Your task to perform on an android device: check data usage Image 0: 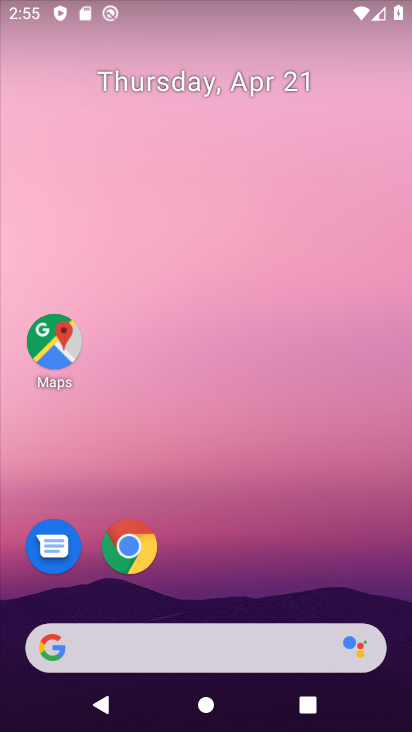
Step 0: drag from (292, 608) to (377, 51)
Your task to perform on an android device: check data usage Image 1: 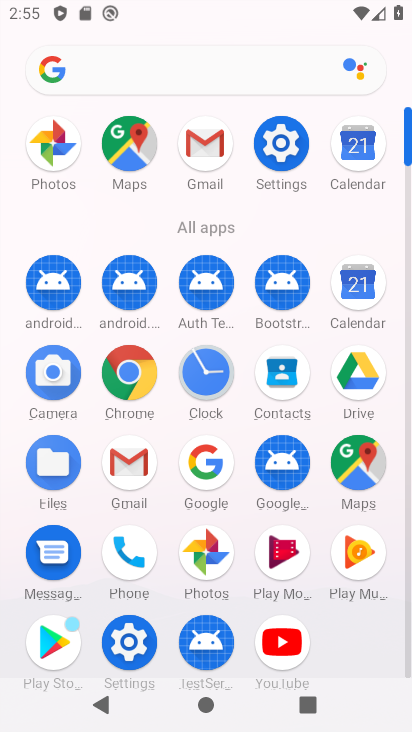
Step 1: click (275, 146)
Your task to perform on an android device: check data usage Image 2: 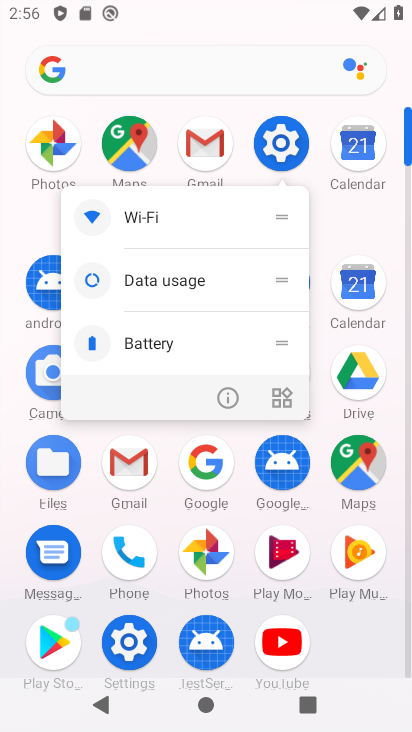
Step 2: click (298, 140)
Your task to perform on an android device: check data usage Image 3: 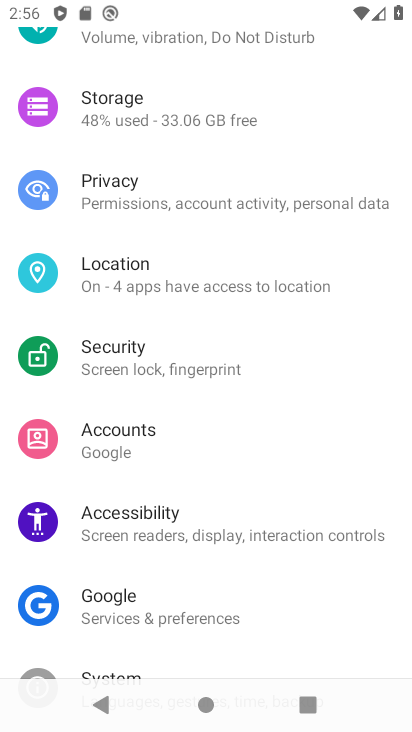
Step 3: drag from (154, 154) to (132, 565)
Your task to perform on an android device: check data usage Image 4: 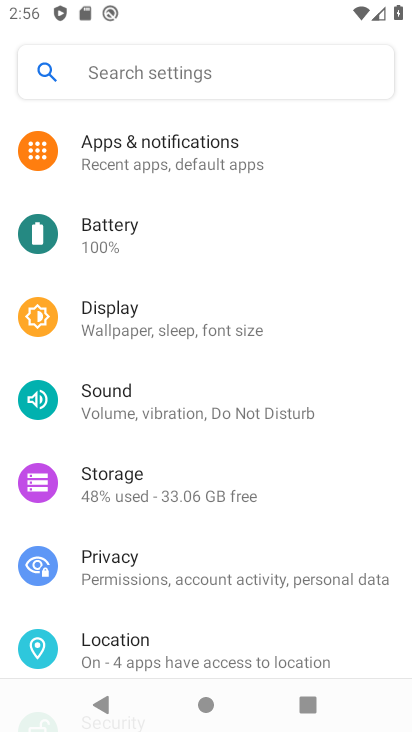
Step 4: click (137, 136)
Your task to perform on an android device: check data usage Image 5: 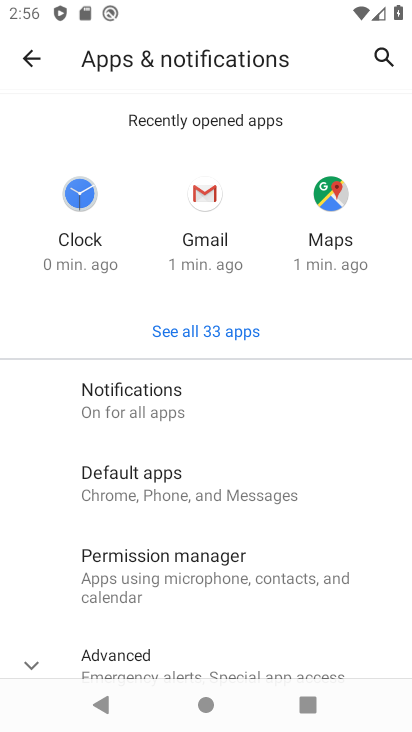
Step 5: click (31, 59)
Your task to perform on an android device: check data usage Image 6: 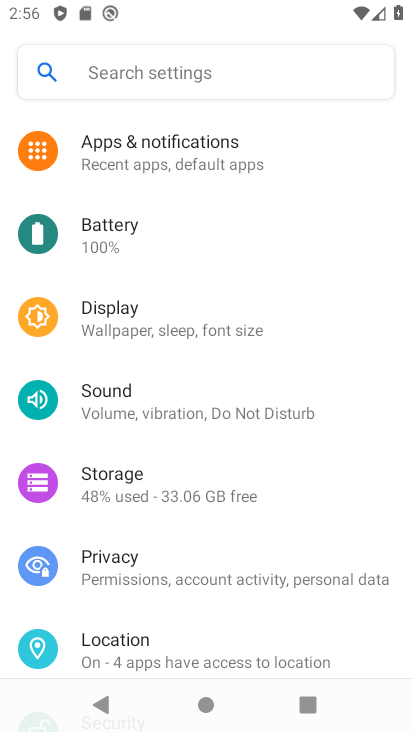
Step 6: drag from (180, 172) to (153, 647)
Your task to perform on an android device: check data usage Image 7: 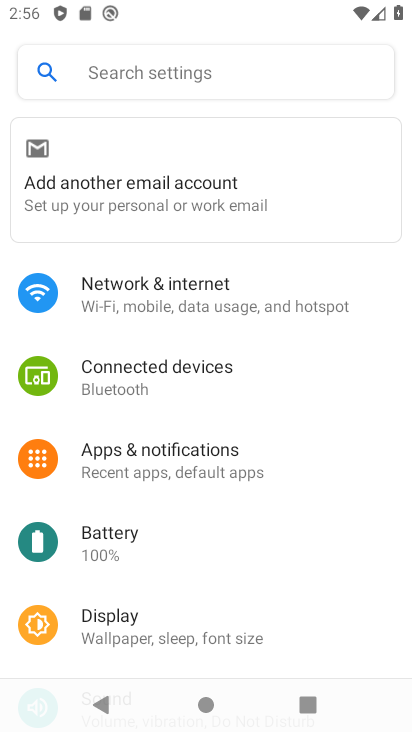
Step 7: click (166, 291)
Your task to perform on an android device: check data usage Image 8: 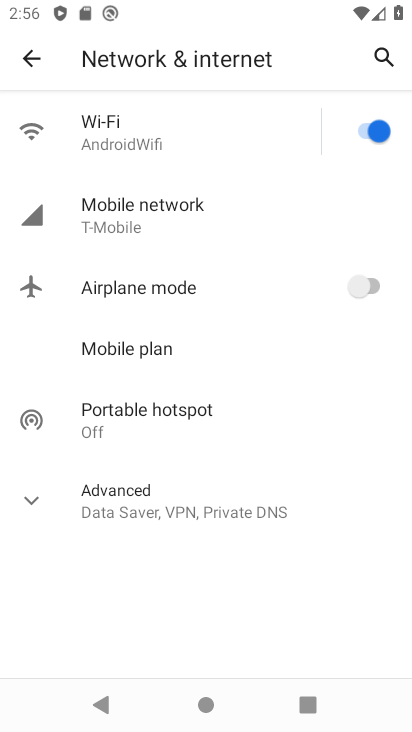
Step 8: click (119, 221)
Your task to perform on an android device: check data usage Image 9: 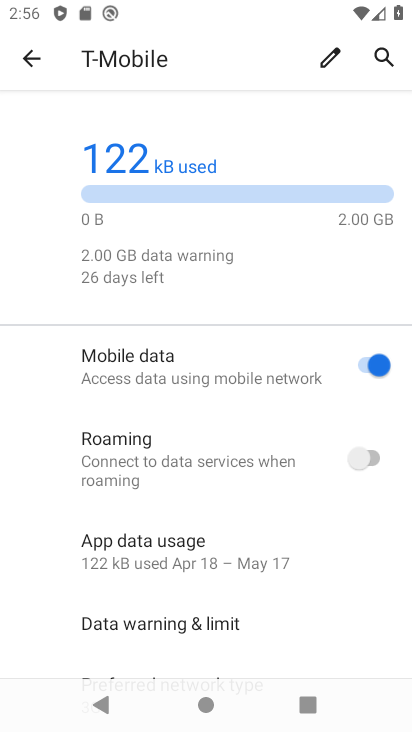
Step 9: task complete